Your task to perform on an android device: Go to accessibility settings Image 0: 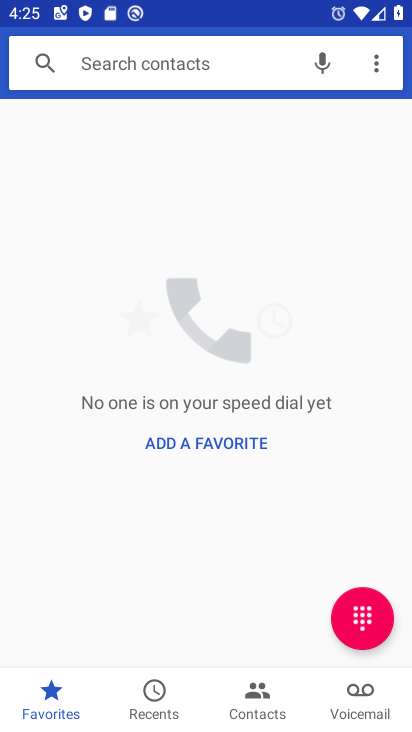
Step 0: press home button
Your task to perform on an android device: Go to accessibility settings Image 1: 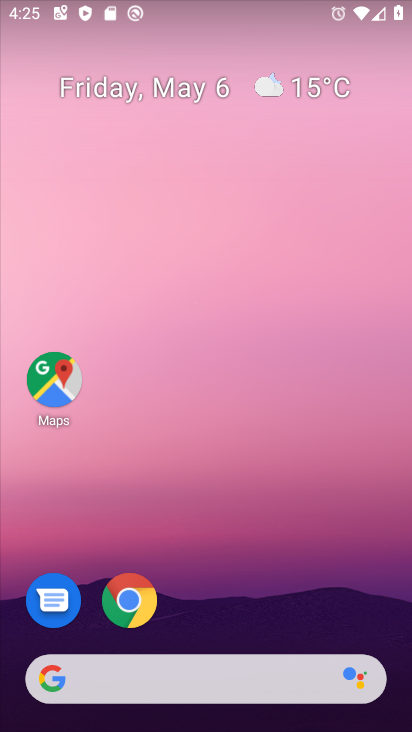
Step 1: drag from (228, 604) to (246, 226)
Your task to perform on an android device: Go to accessibility settings Image 2: 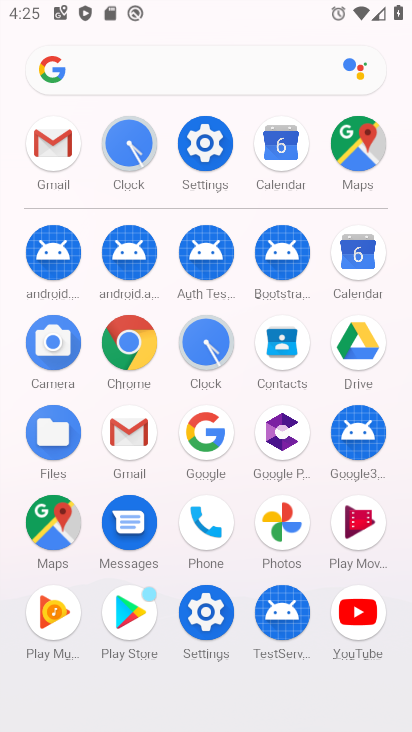
Step 2: click (220, 161)
Your task to perform on an android device: Go to accessibility settings Image 3: 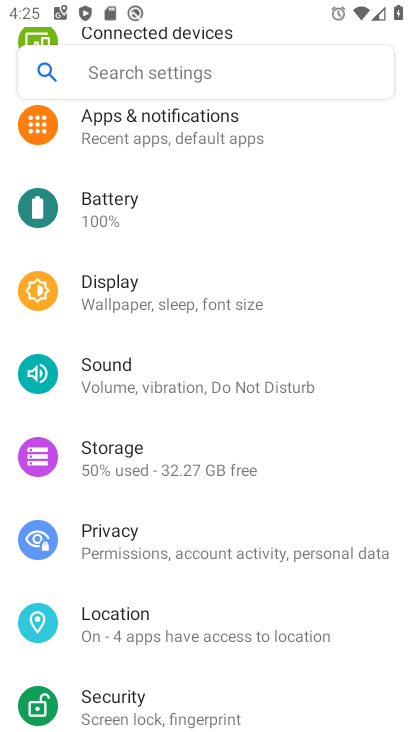
Step 3: drag from (152, 598) to (207, 240)
Your task to perform on an android device: Go to accessibility settings Image 4: 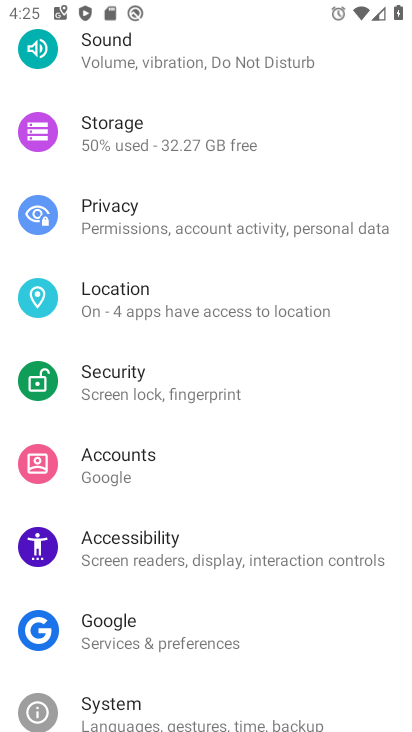
Step 4: drag from (195, 619) to (227, 434)
Your task to perform on an android device: Go to accessibility settings Image 5: 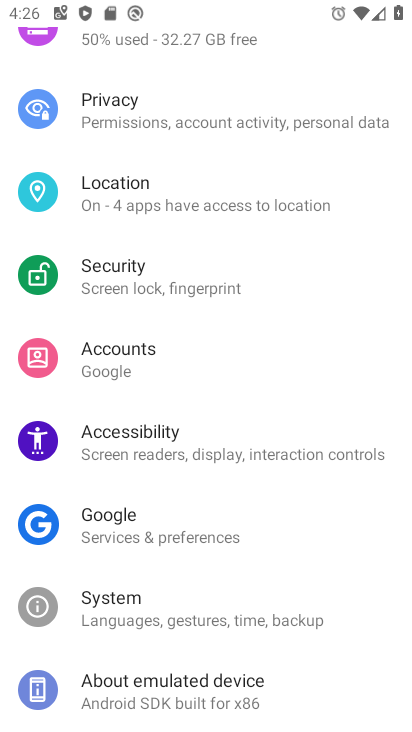
Step 5: click (149, 458)
Your task to perform on an android device: Go to accessibility settings Image 6: 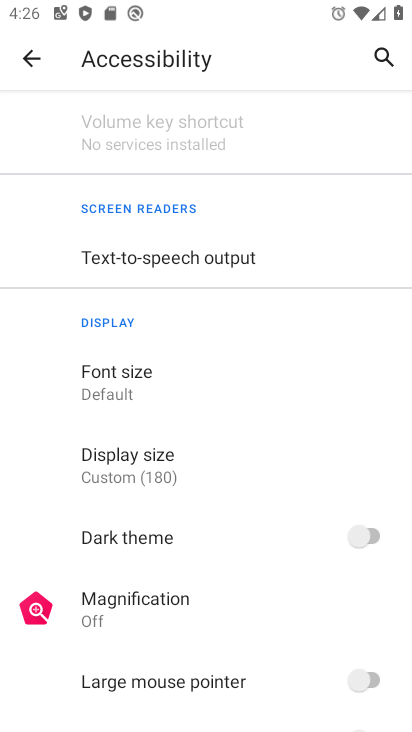
Step 6: task complete